Your task to perform on an android device: Open sound settings Image 0: 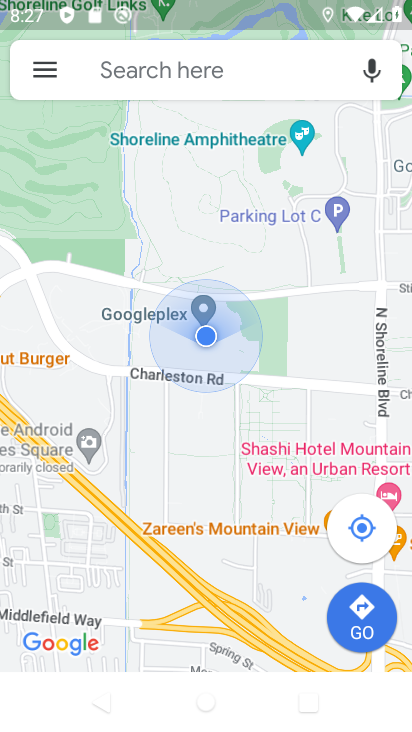
Step 0: press home button
Your task to perform on an android device: Open sound settings Image 1: 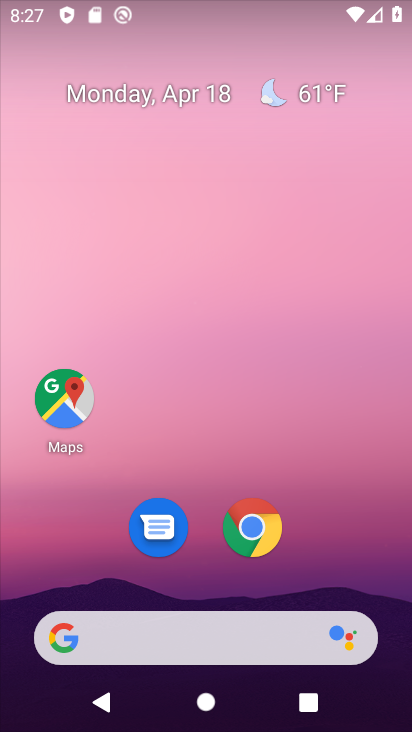
Step 1: drag from (371, 578) to (374, 44)
Your task to perform on an android device: Open sound settings Image 2: 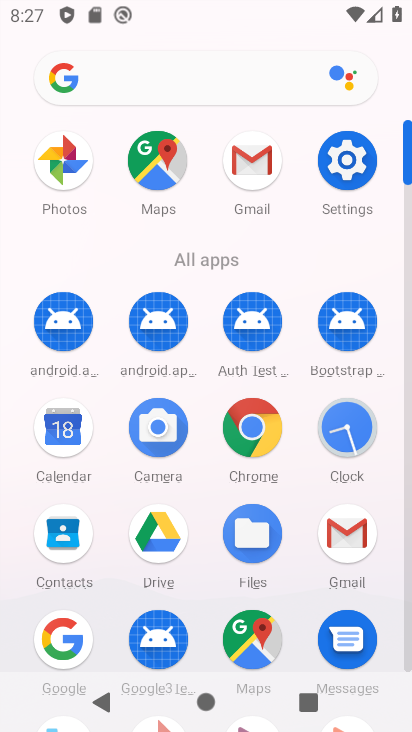
Step 2: click (341, 161)
Your task to perform on an android device: Open sound settings Image 3: 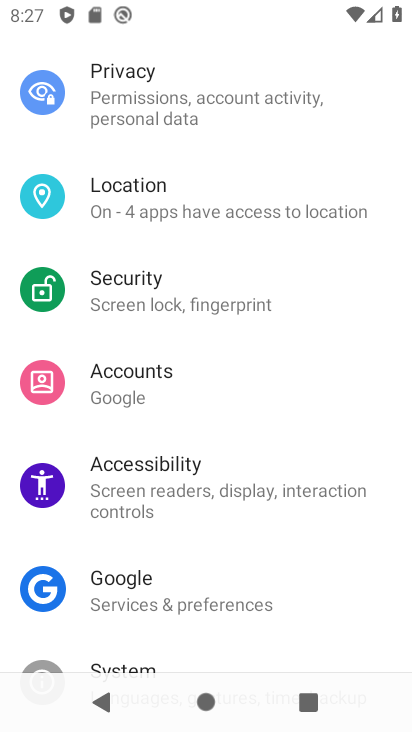
Step 3: drag from (320, 371) to (322, 570)
Your task to perform on an android device: Open sound settings Image 4: 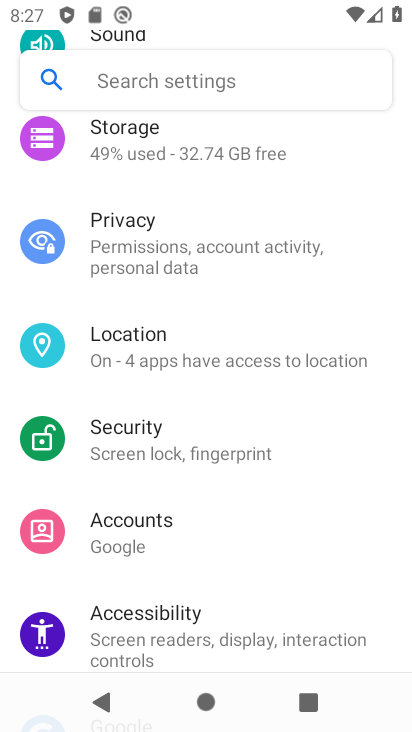
Step 4: drag from (352, 163) to (336, 511)
Your task to perform on an android device: Open sound settings Image 5: 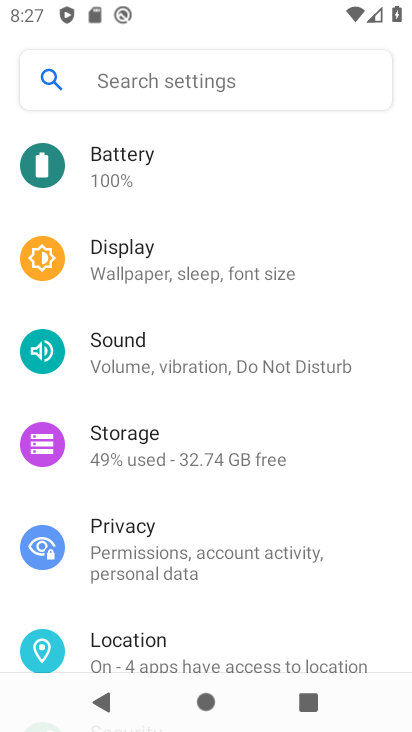
Step 5: click (131, 349)
Your task to perform on an android device: Open sound settings Image 6: 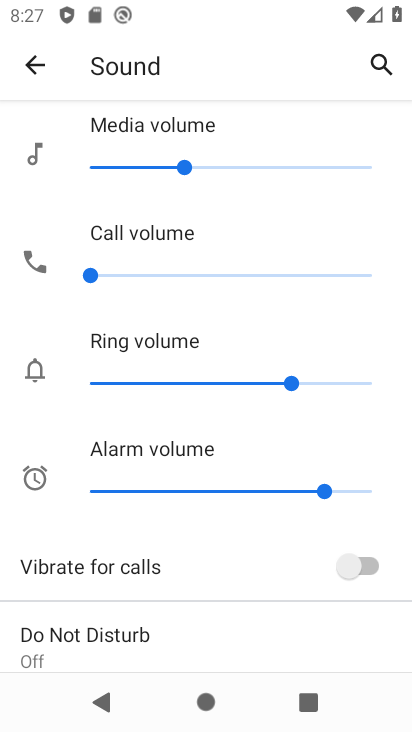
Step 6: task complete